Your task to perform on an android device: find photos in the google photos app Image 0: 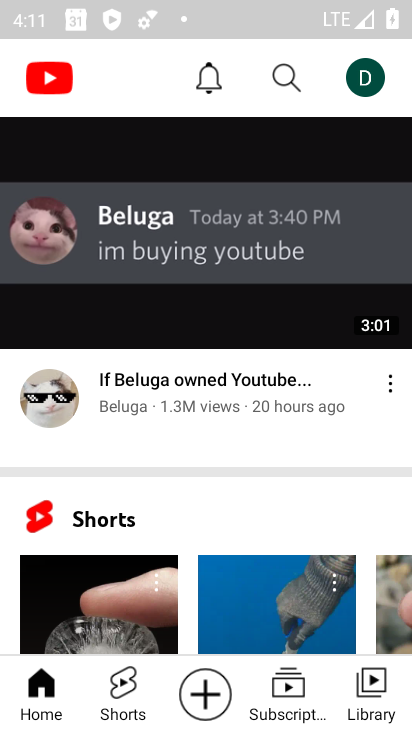
Step 0: press home button
Your task to perform on an android device: find photos in the google photos app Image 1: 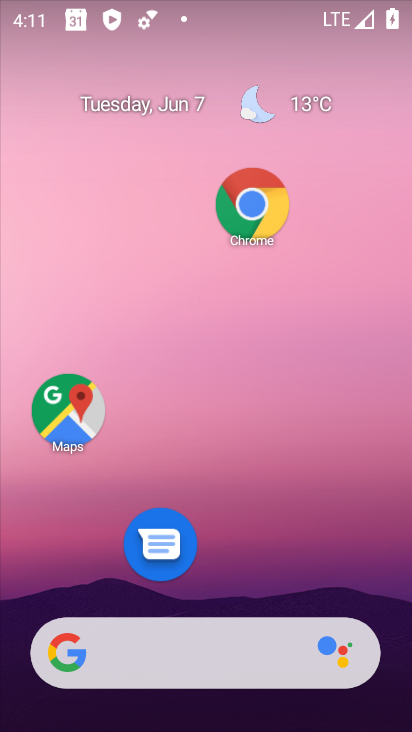
Step 1: drag from (225, 588) to (223, 117)
Your task to perform on an android device: find photos in the google photos app Image 2: 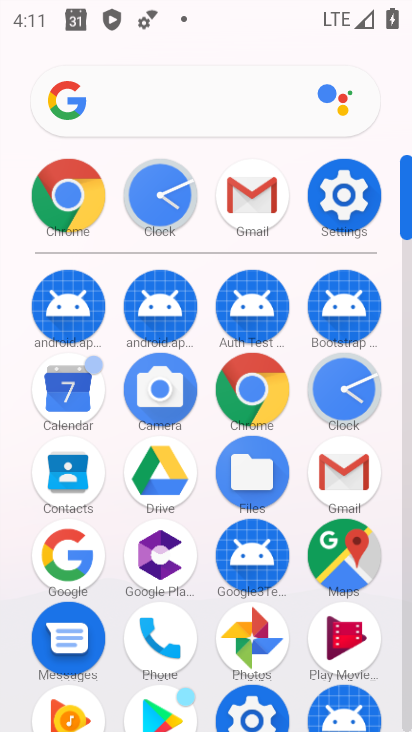
Step 2: click (246, 630)
Your task to perform on an android device: find photos in the google photos app Image 3: 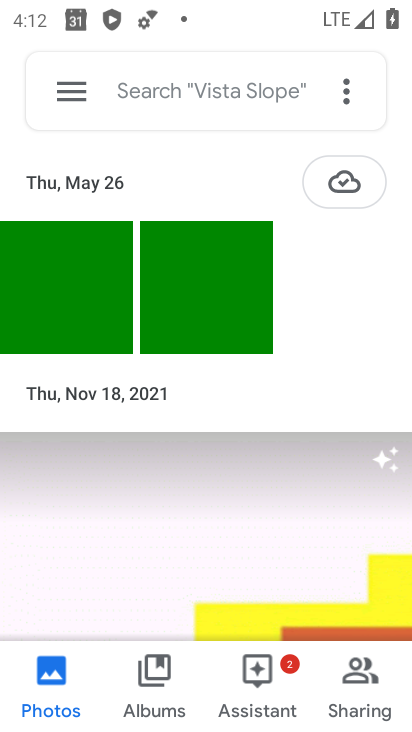
Step 3: task complete